Your task to perform on an android device: set the stopwatch Image 0: 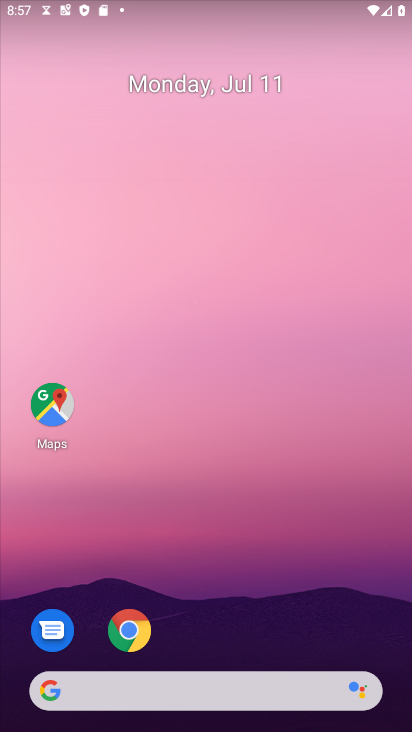
Step 0: drag from (227, 649) to (197, 28)
Your task to perform on an android device: set the stopwatch Image 1: 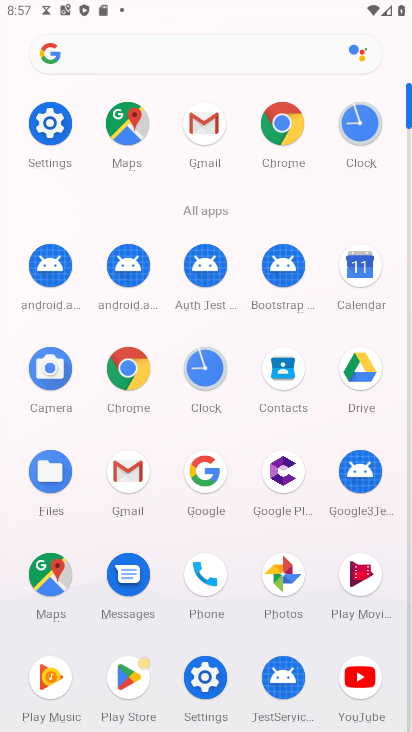
Step 1: click (204, 363)
Your task to perform on an android device: set the stopwatch Image 2: 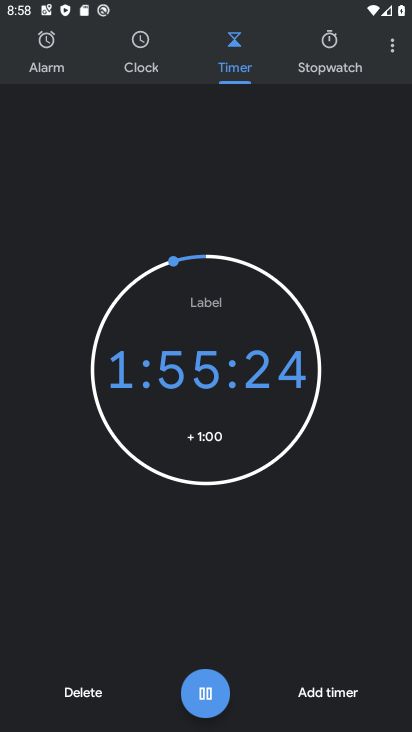
Step 2: click (325, 37)
Your task to perform on an android device: set the stopwatch Image 3: 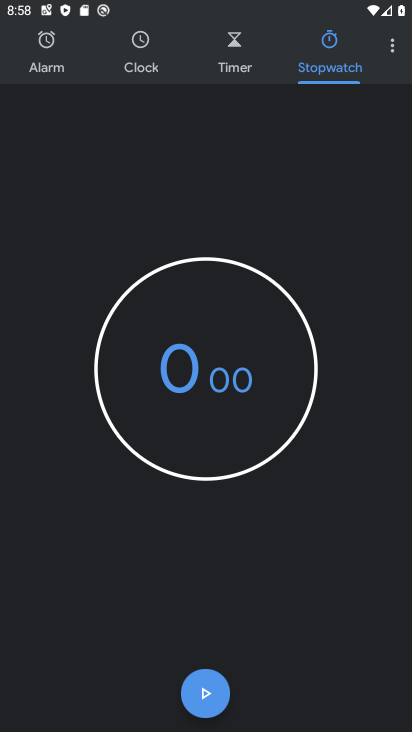
Step 3: click (200, 692)
Your task to perform on an android device: set the stopwatch Image 4: 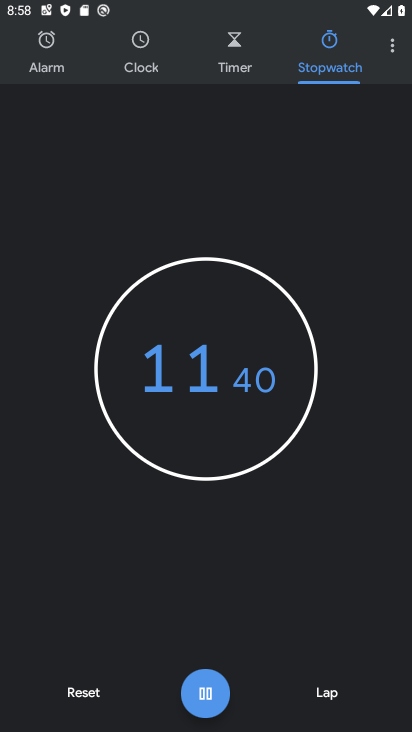
Step 4: task complete